Your task to perform on an android device: Open Google Maps Image 0: 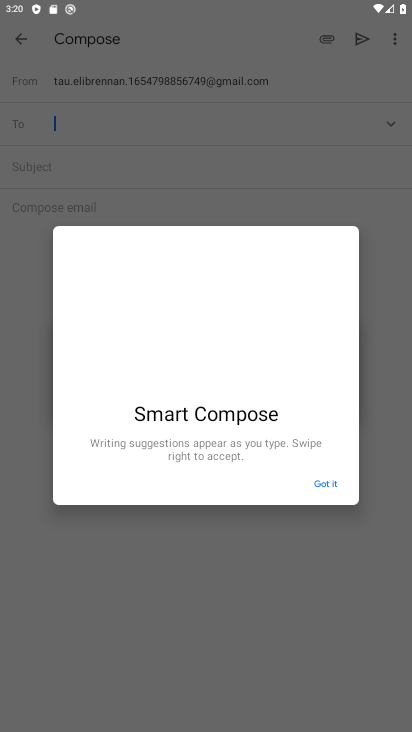
Step 0: press home button
Your task to perform on an android device: Open Google Maps Image 1: 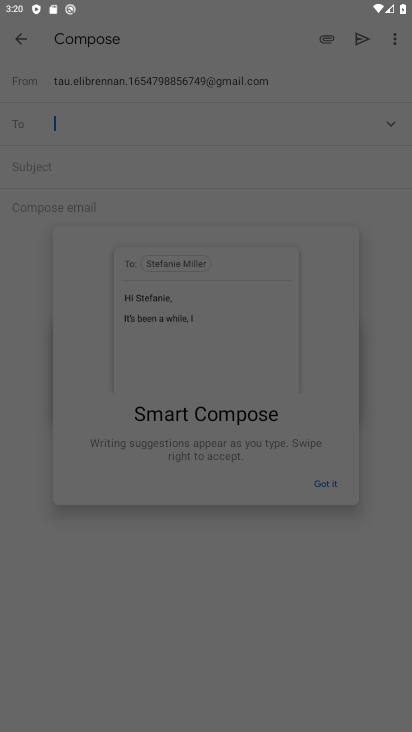
Step 1: drag from (213, 565) to (220, 111)
Your task to perform on an android device: Open Google Maps Image 2: 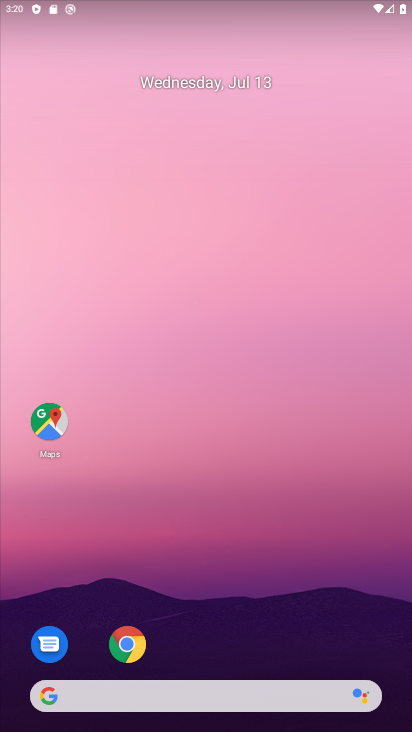
Step 2: drag from (160, 594) to (193, 152)
Your task to perform on an android device: Open Google Maps Image 3: 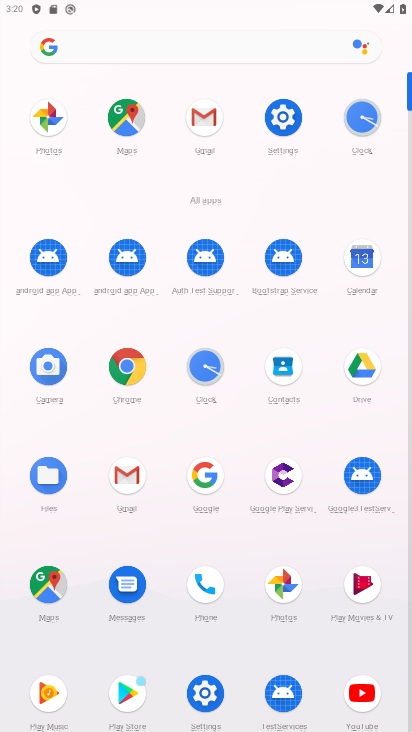
Step 3: click (26, 596)
Your task to perform on an android device: Open Google Maps Image 4: 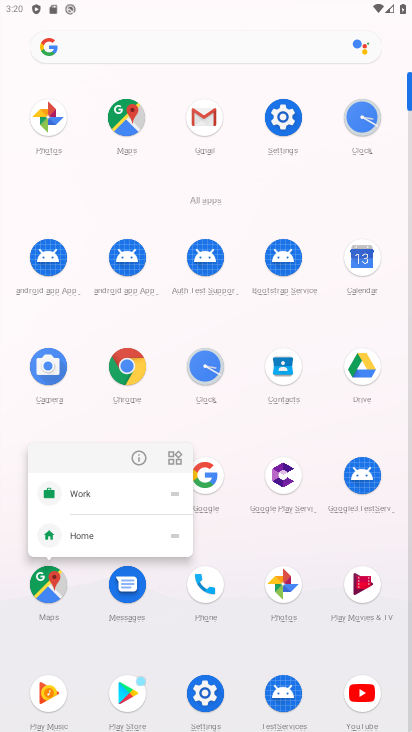
Step 4: click (133, 456)
Your task to perform on an android device: Open Google Maps Image 5: 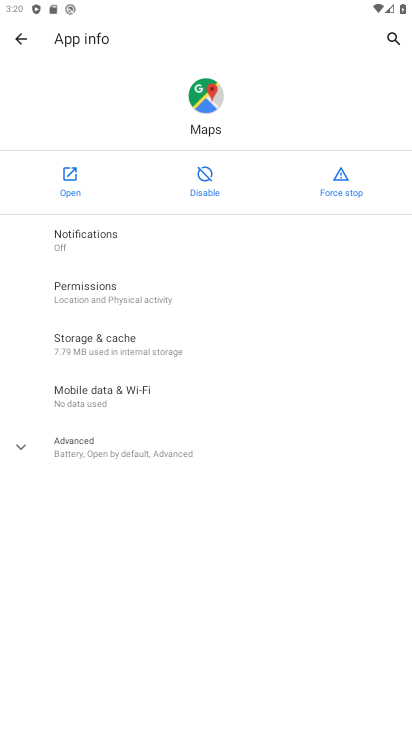
Step 5: click (71, 176)
Your task to perform on an android device: Open Google Maps Image 6: 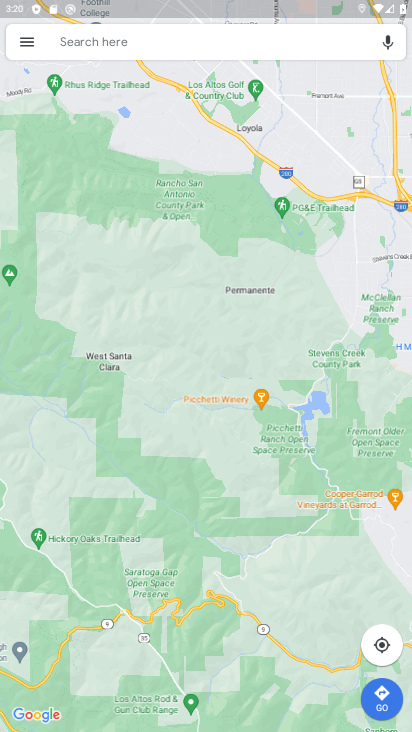
Step 6: task complete